Your task to perform on an android device: Go to eBay Image 0: 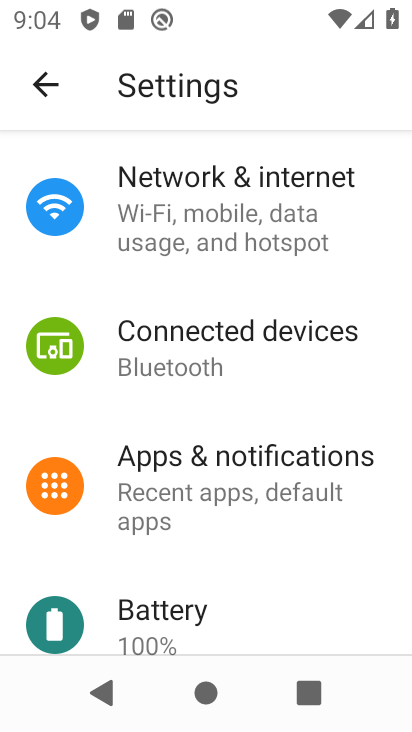
Step 0: press home button
Your task to perform on an android device: Go to eBay Image 1: 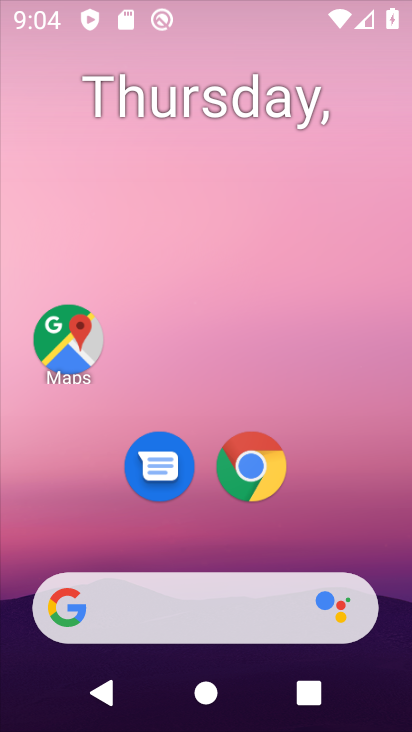
Step 1: drag from (395, 611) to (333, 121)
Your task to perform on an android device: Go to eBay Image 2: 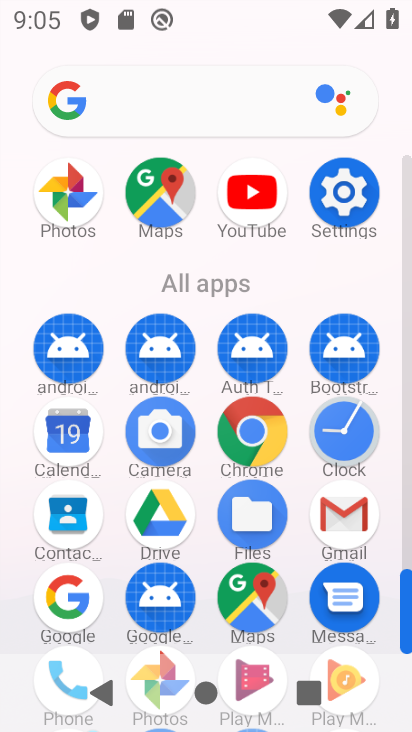
Step 2: drag from (210, 650) to (216, 137)
Your task to perform on an android device: Go to eBay Image 3: 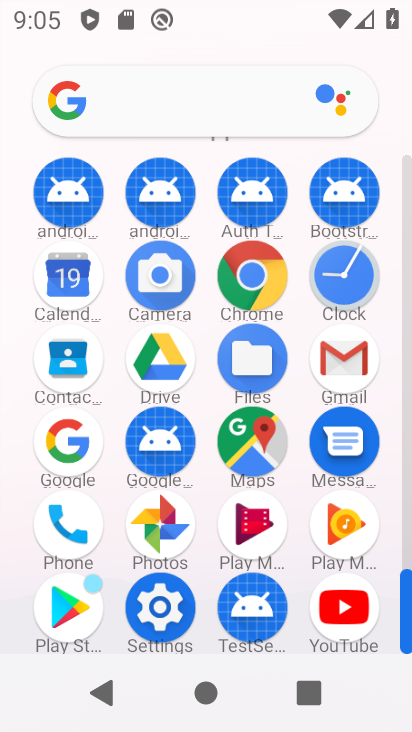
Step 3: click (78, 449)
Your task to perform on an android device: Go to eBay Image 4: 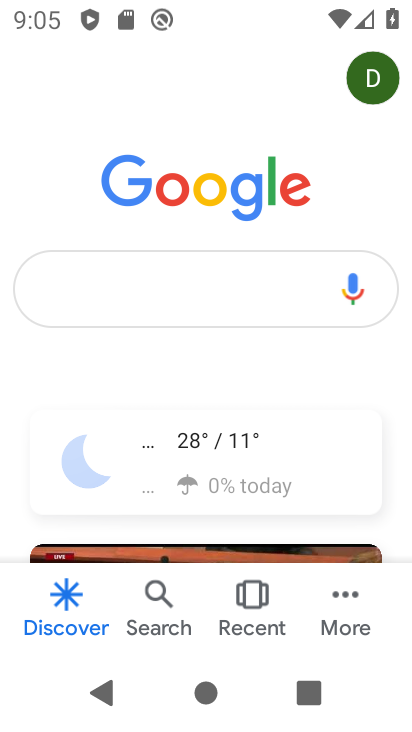
Step 4: click (112, 291)
Your task to perform on an android device: Go to eBay Image 5: 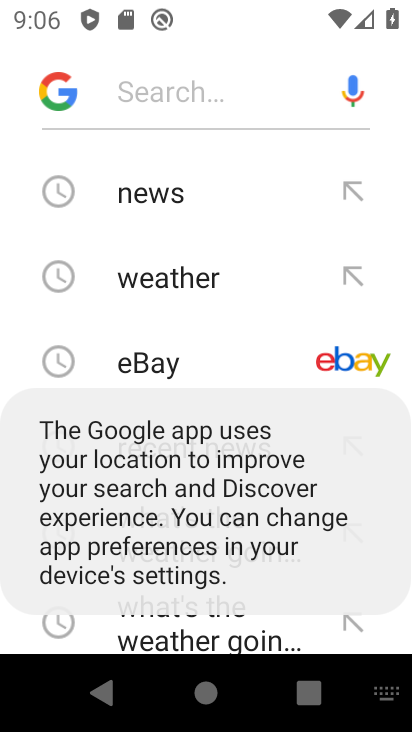
Step 5: click (194, 369)
Your task to perform on an android device: Go to eBay Image 6: 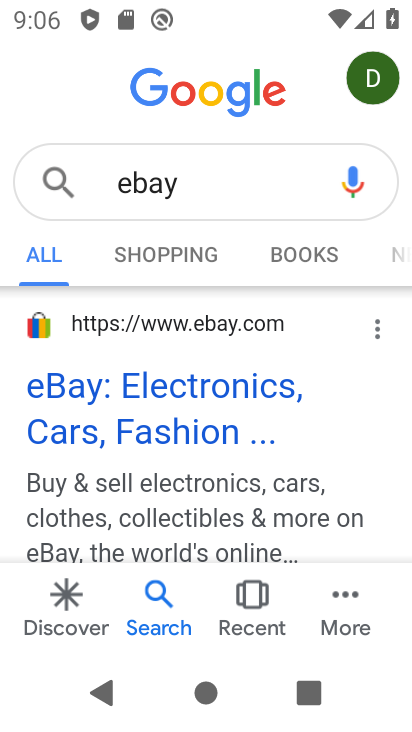
Step 6: task complete